Your task to perform on an android device: Turn off the flashlight Image 0: 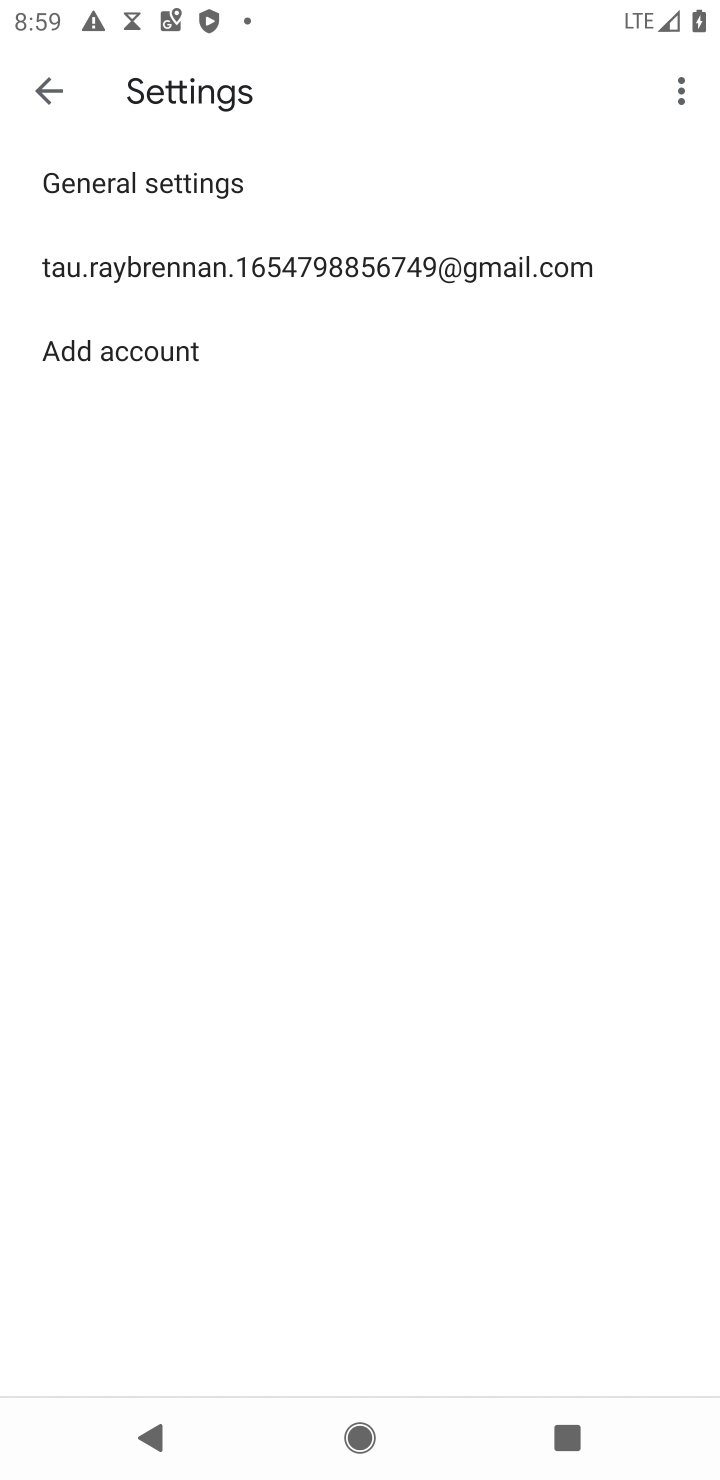
Step 0: press back button
Your task to perform on an android device: Turn off the flashlight Image 1: 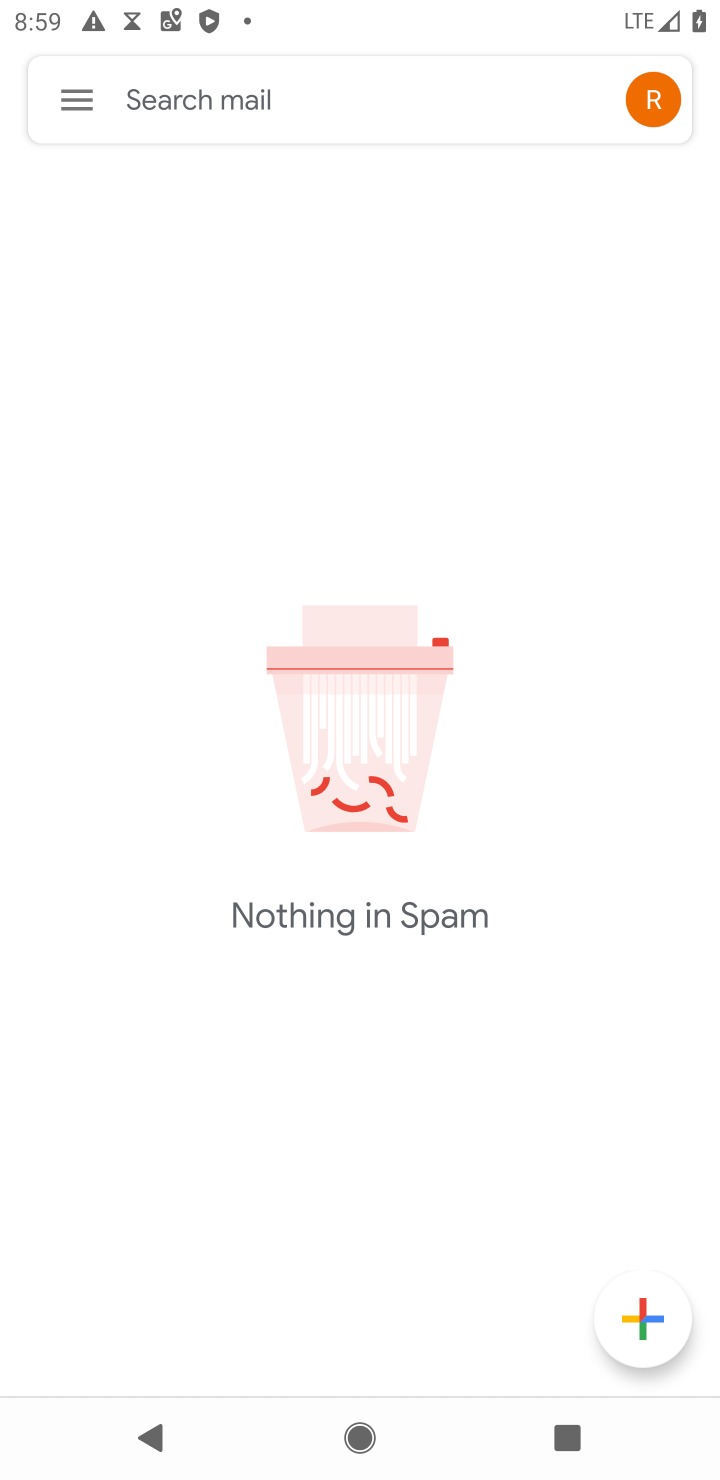
Step 1: press back button
Your task to perform on an android device: Turn off the flashlight Image 2: 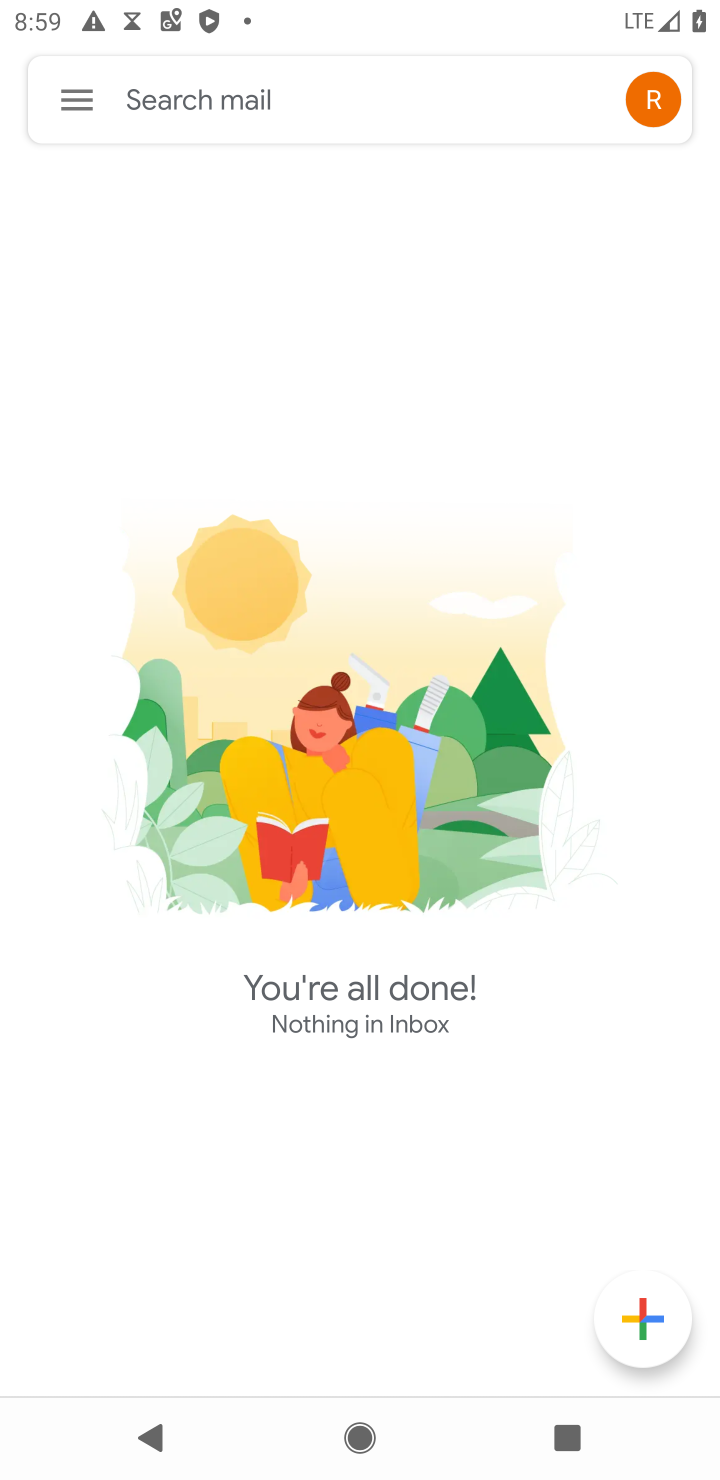
Step 2: press back button
Your task to perform on an android device: Turn off the flashlight Image 3: 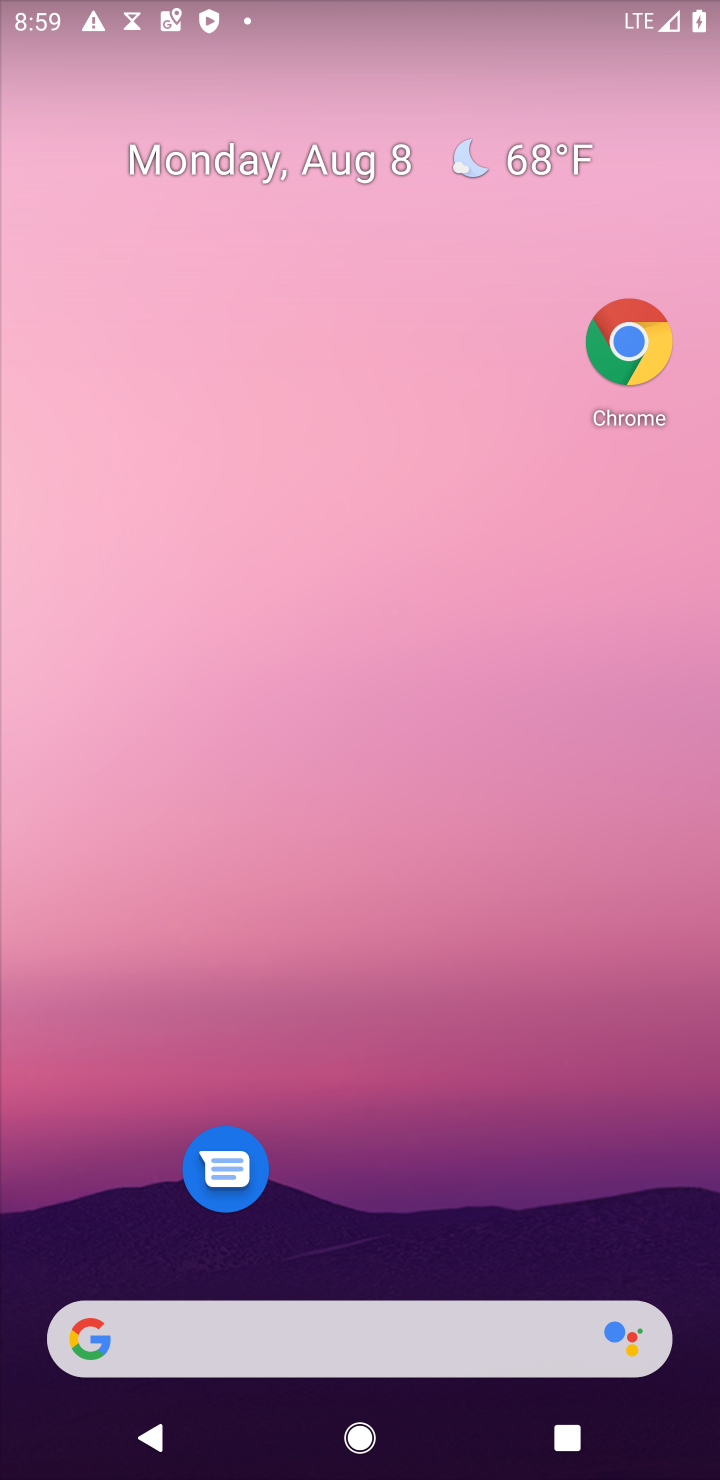
Step 3: drag from (441, 754) to (473, 128)
Your task to perform on an android device: Turn off the flashlight Image 4: 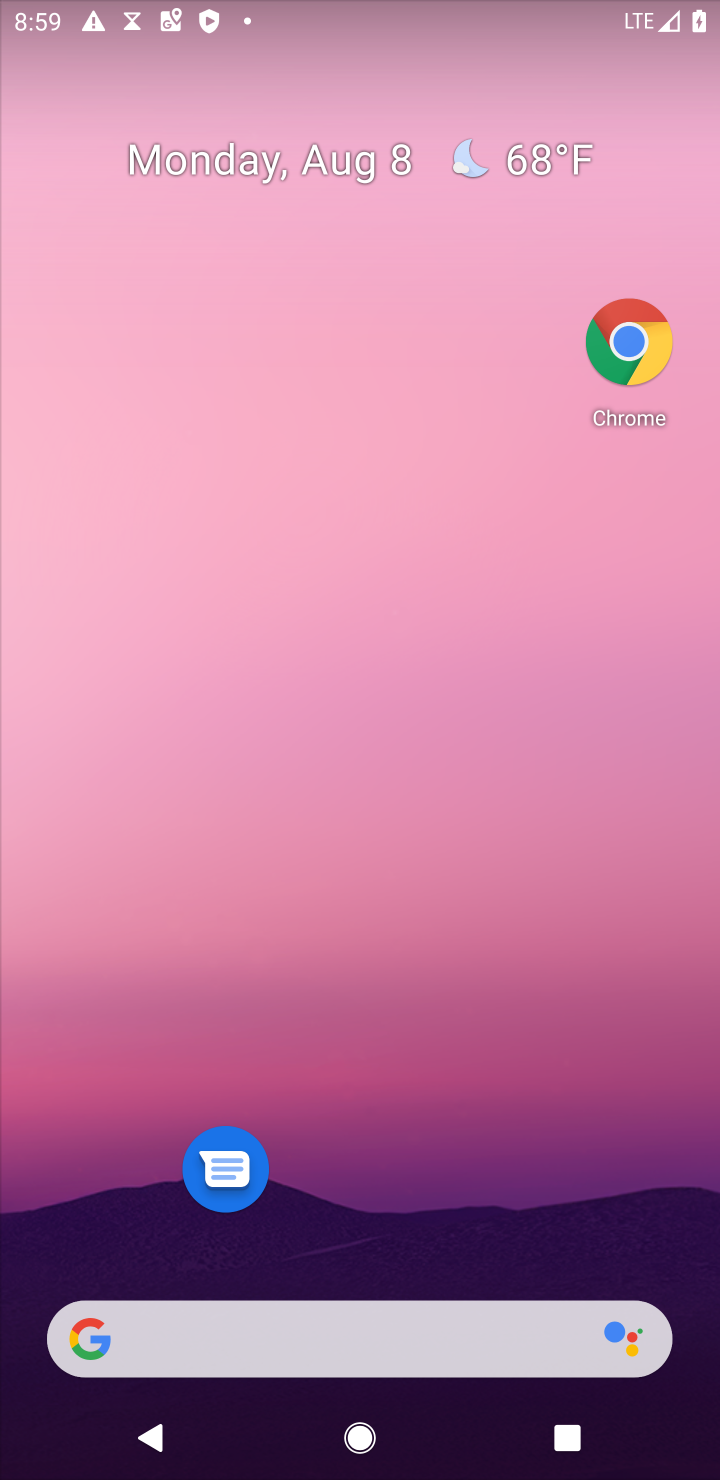
Step 4: drag from (341, 1266) to (546, 7)
Your task to perform on an android device: Turn off the flashlight Image 5: 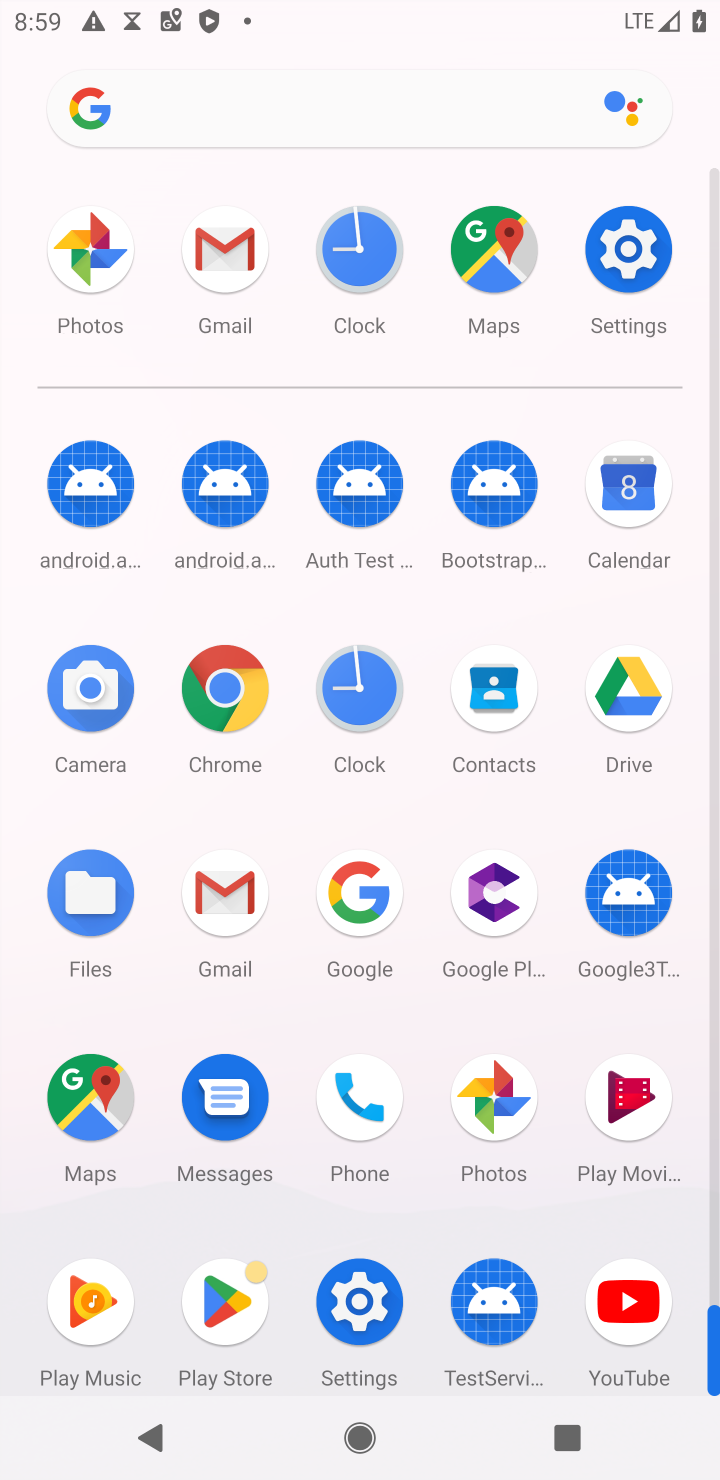
Step 5: click (620, 251)
Your task to perform on an android device: Turn off the flashlight Image 6: 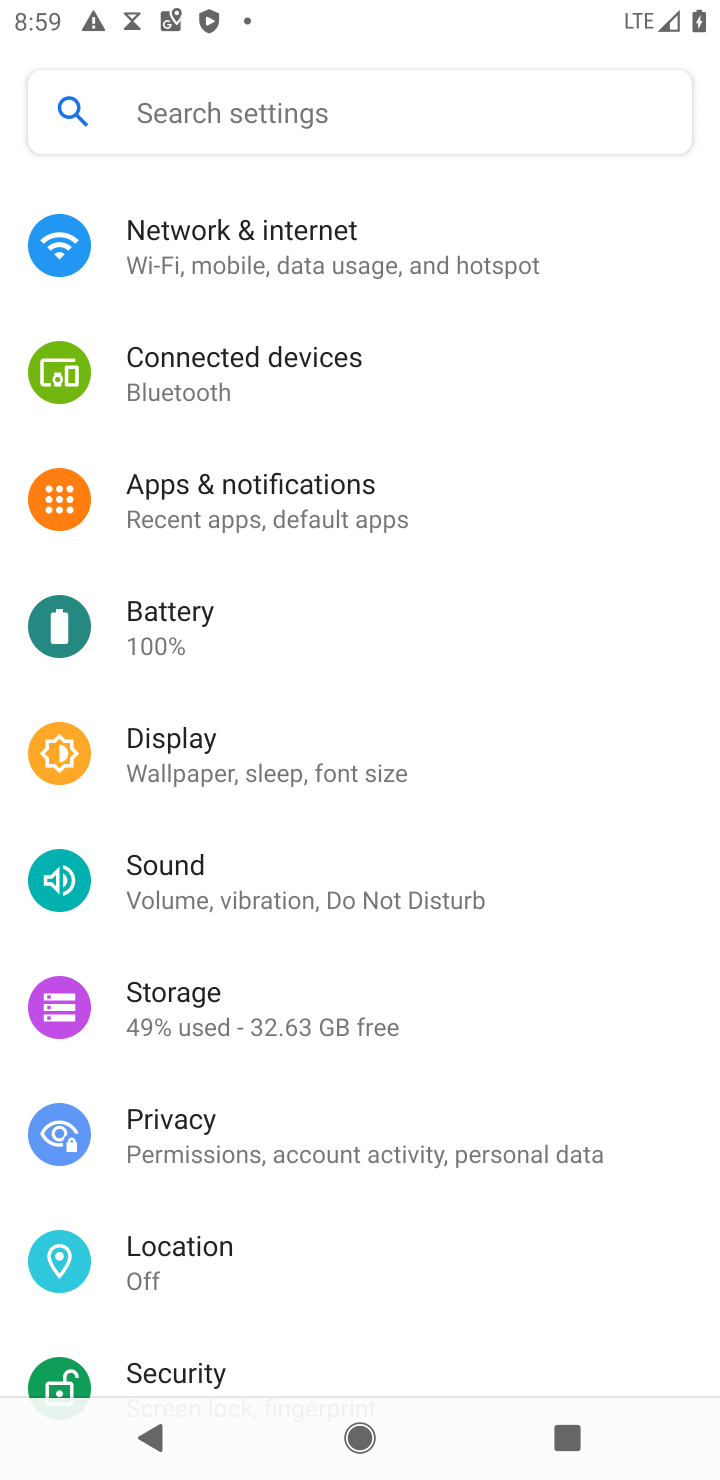
Step 6: click (258, 112)
Your task to perform on an android device: Turn off the flashlight Image 7: 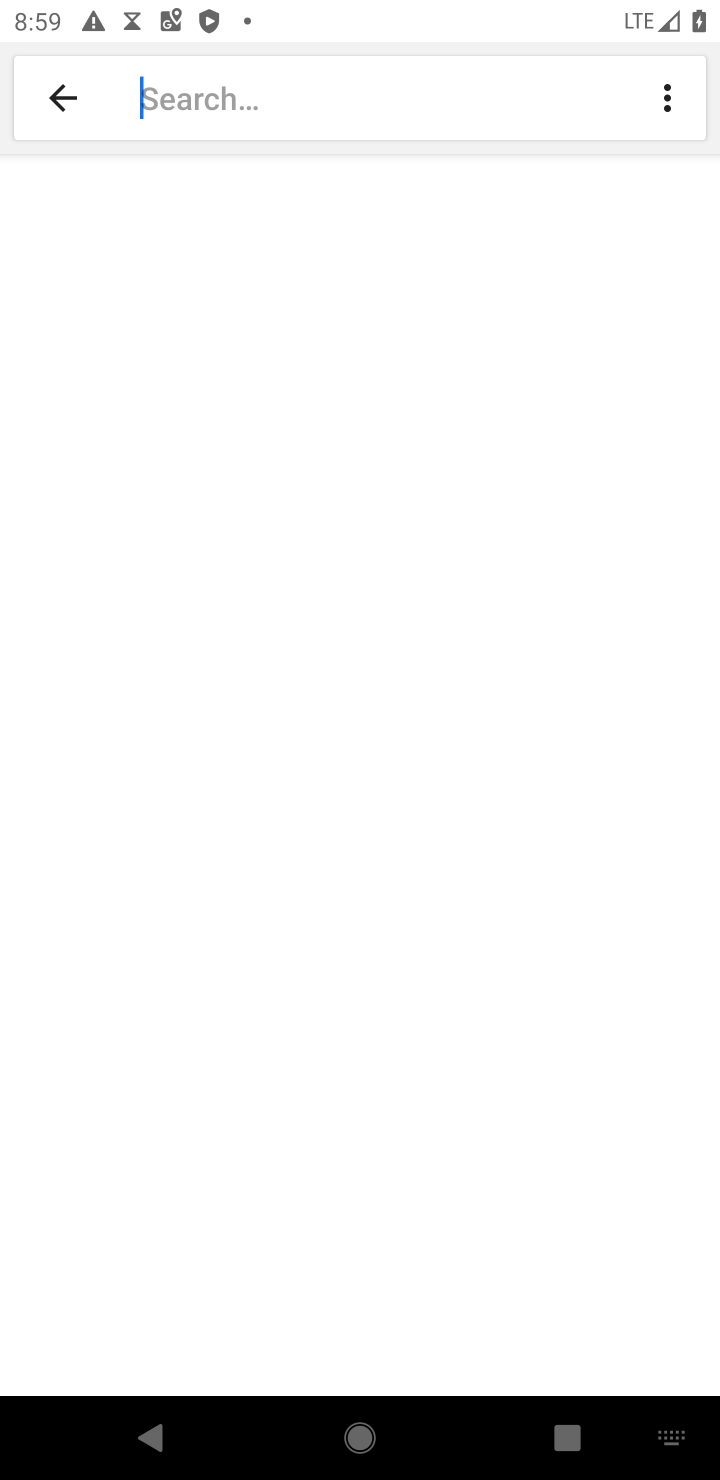
Step 7: type "flashlight"
Your task to perform on an android device: Turn off the flashlight Image 8: 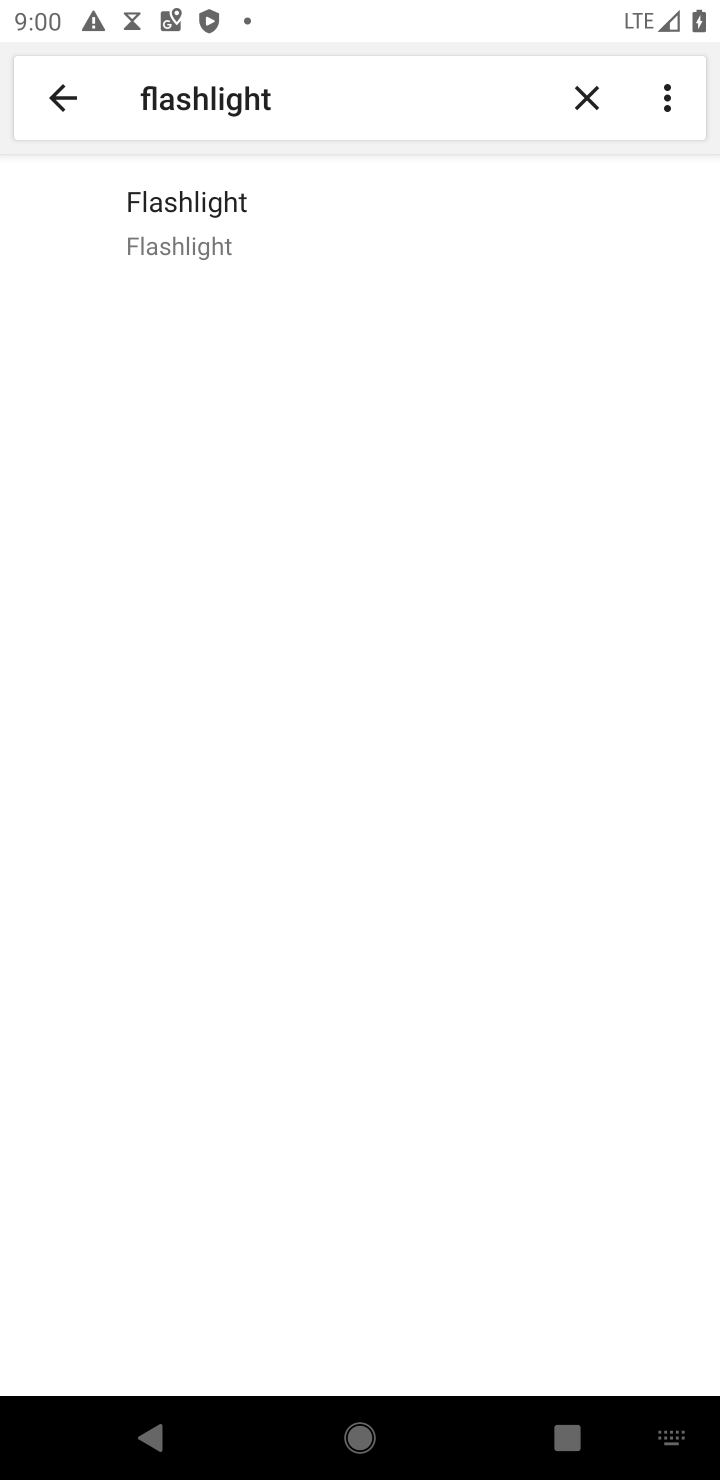
Step 8: click (205, 224)
Your task to perform on an android device: Turn off the flashlight Image 9: 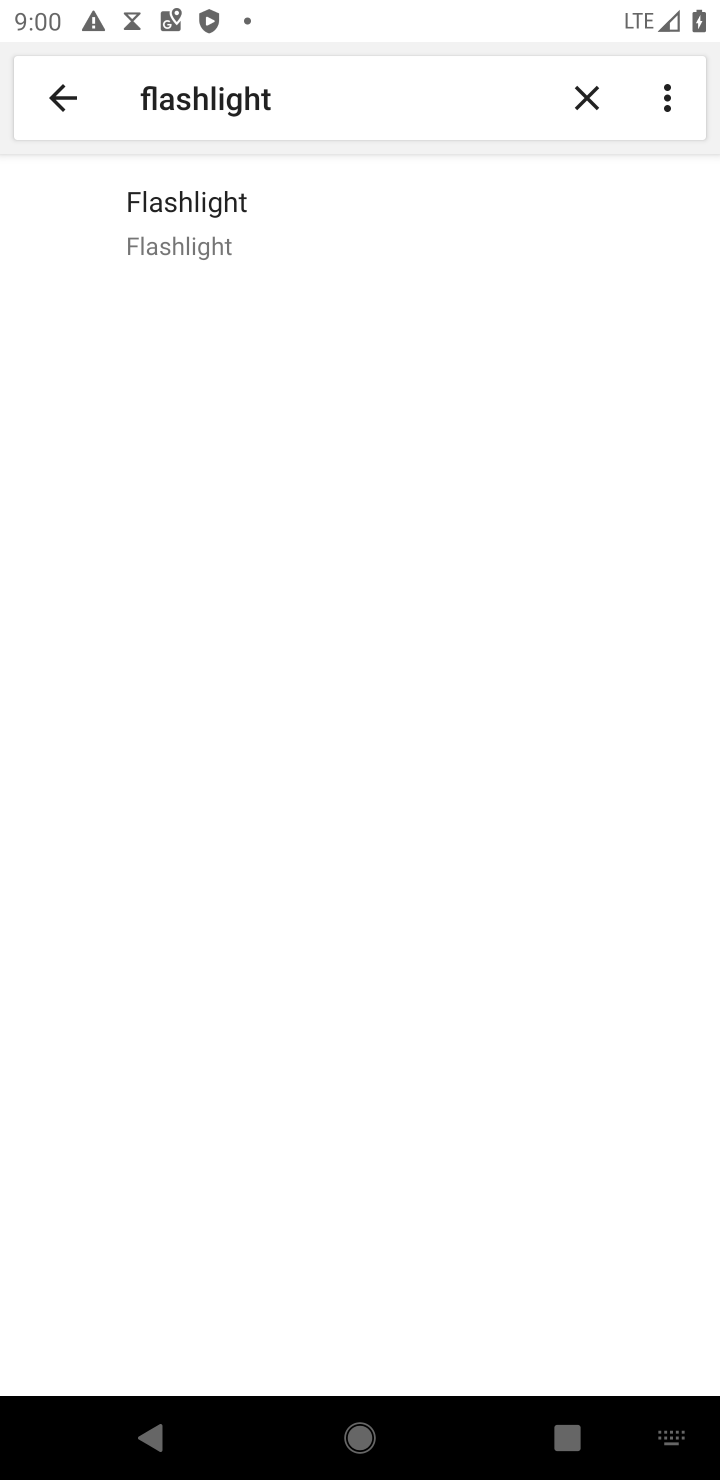
Step 9: click (205, 224)
Your task to perform on an android device: Turn off the flashlight Image 10: 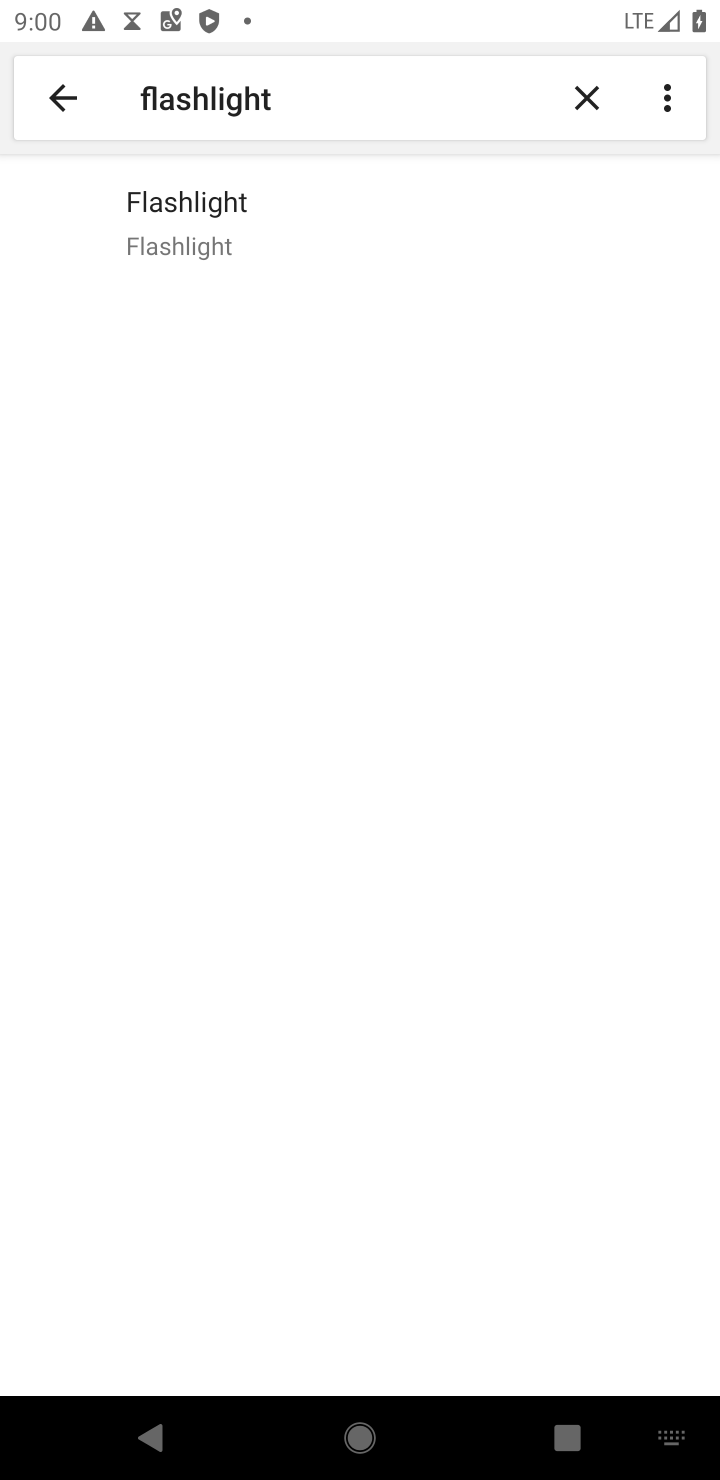
Step 10: task complete